Your task to perform on an android device: toggle pop-ups in chrome Image 0: 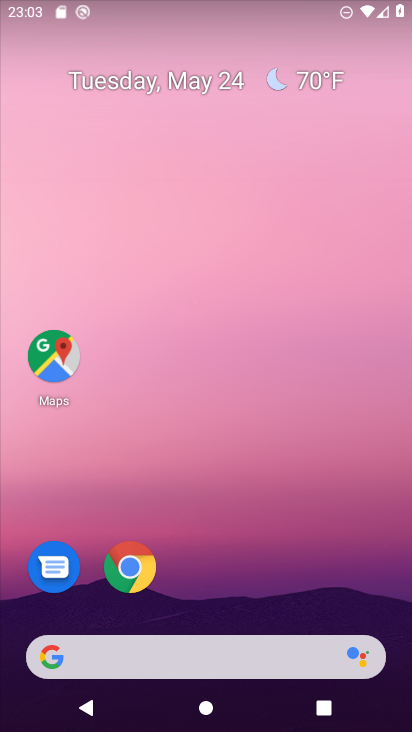
Step 0: click (123, 571)
Your task to perform on an android device: toggle pop-ups in chrome Image 1: 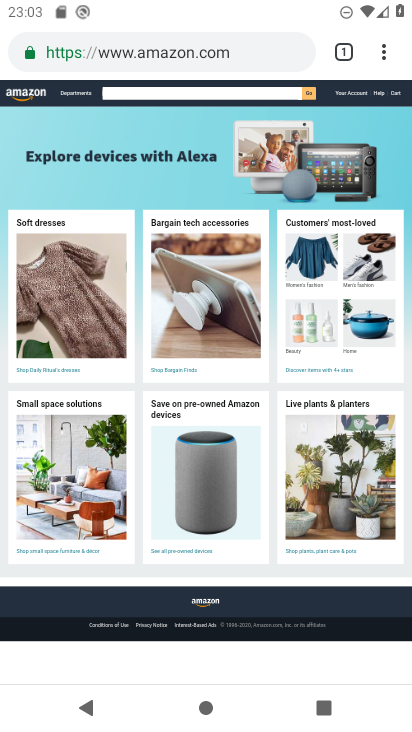
Step 1: click (391, 44)
Your task to perform on an android device: toggle pop-ups in chrome Image 2: 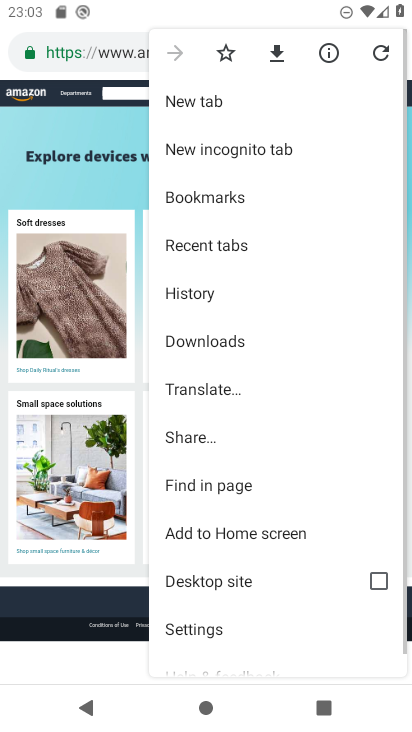
Step 2: click (256, 631)
Your task to perform on an android device: toggle pop-ups in chrome Image 3: 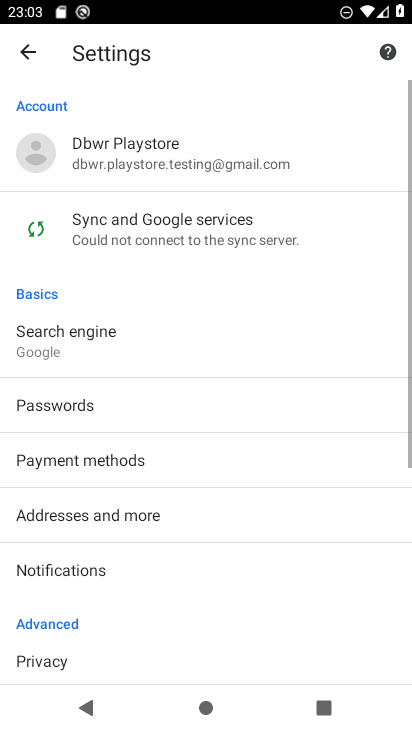
Step 3: drag from (282, 630) to (250, 144)
Your task to perform on an android device: toggle pop-ups in chrome Image 4: 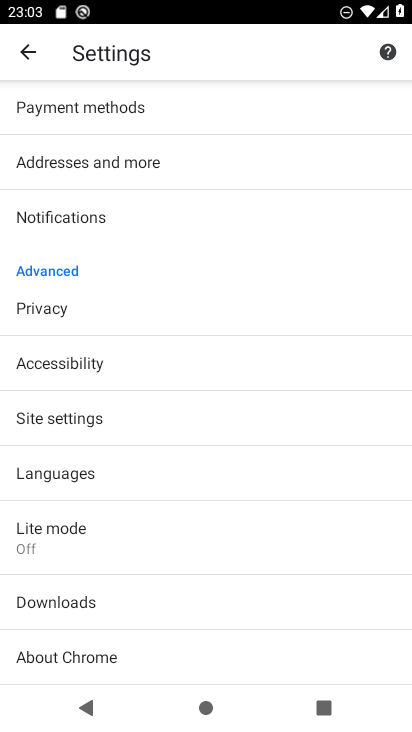
Step 4: drag from (243, 590) to (218, 357)
Your task to perform on an android device: toggle pop-ups in chrome Image 5: 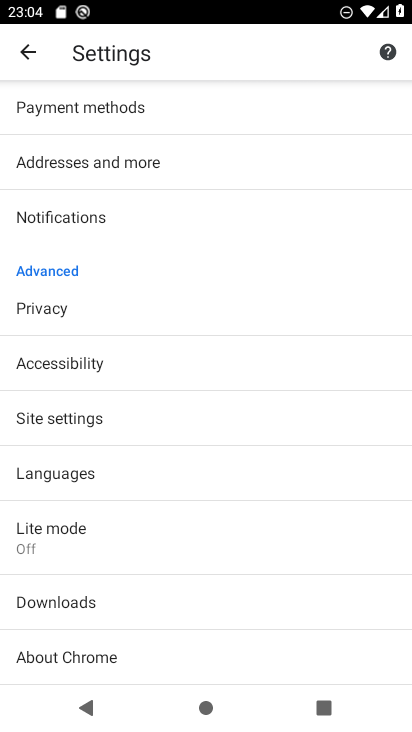
Step 5: click (151, 415)
Your task to perform on an android device: toggle pop-ups in chrome Image 6: 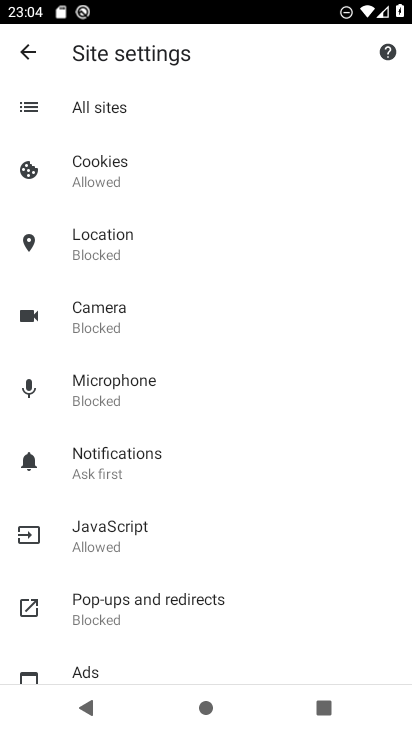
Step 6: click (212, 604)
Your task to perform on an android device: toggle pop-ups in chrome Image 7: 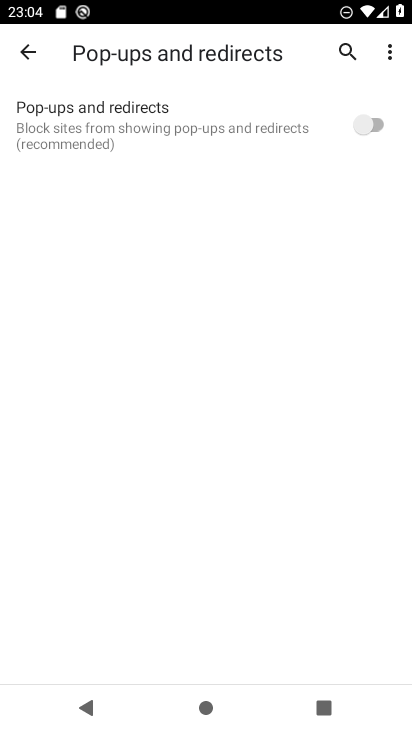
Step 7: click (362, 133)
Your task to perform on an android device: toggle pop-ups in chrome Image 8: 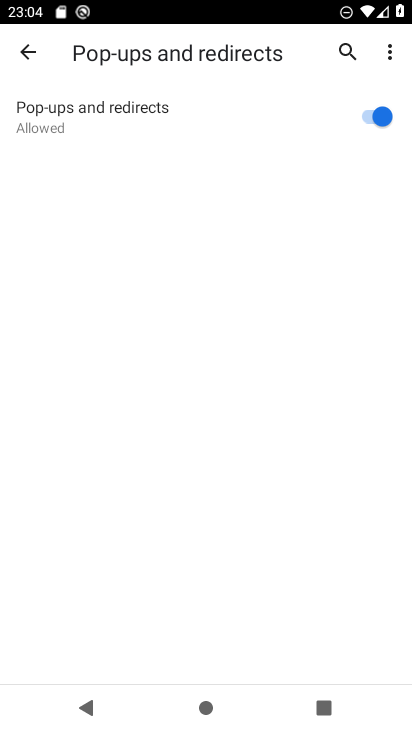
Step 8: task complete